Your task to perform on an android device: change keyboard looks Image 0: 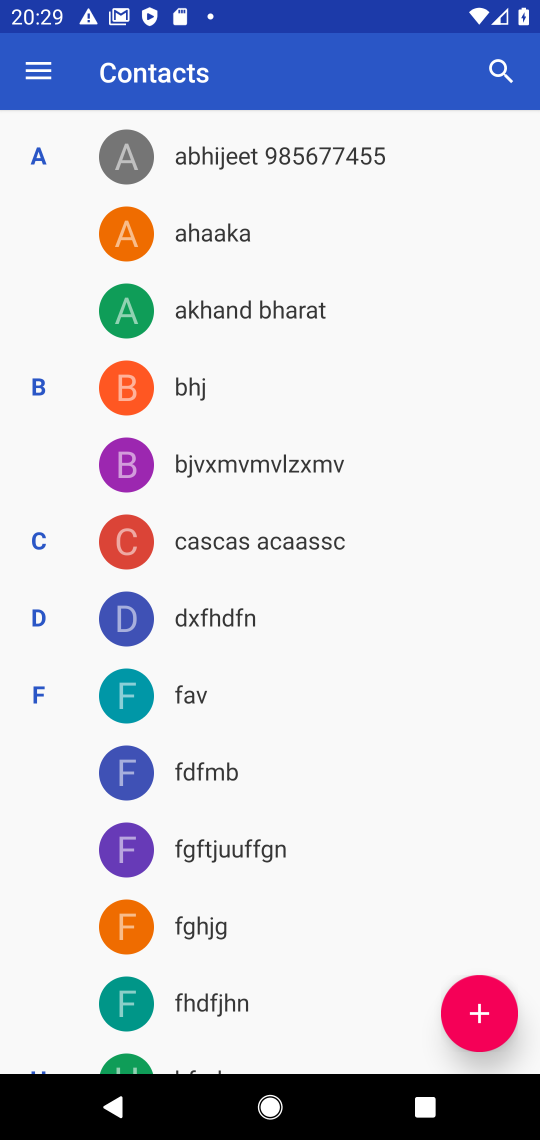
Step 0: press home button
Your task to perform on an android device: change keyboard looks Image 1: 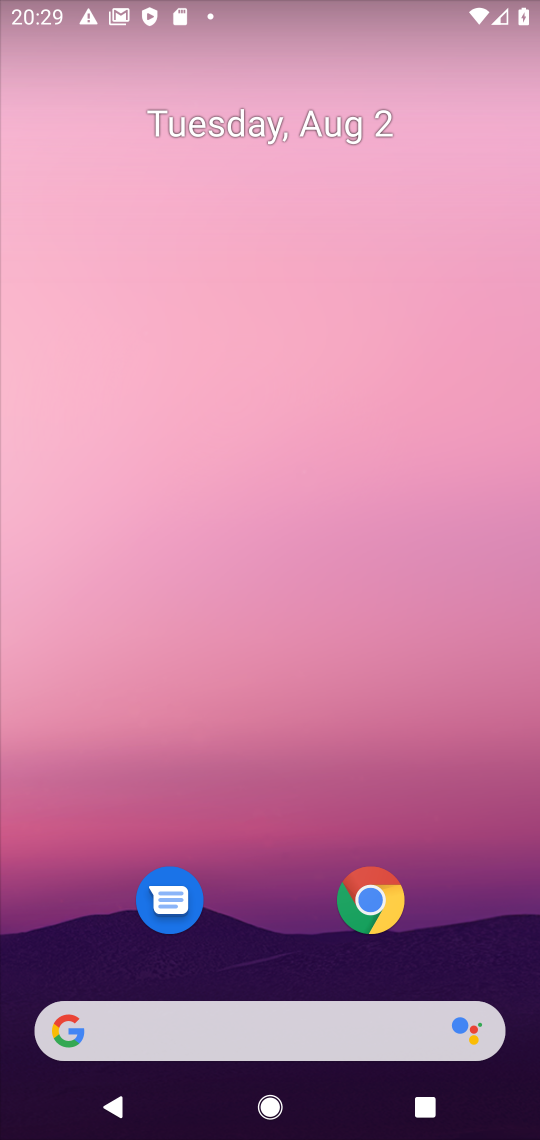
Step 1: drag from (284, 848) to (332, 17)
Your task to perform on an android device: change keyboard looks Image 2: 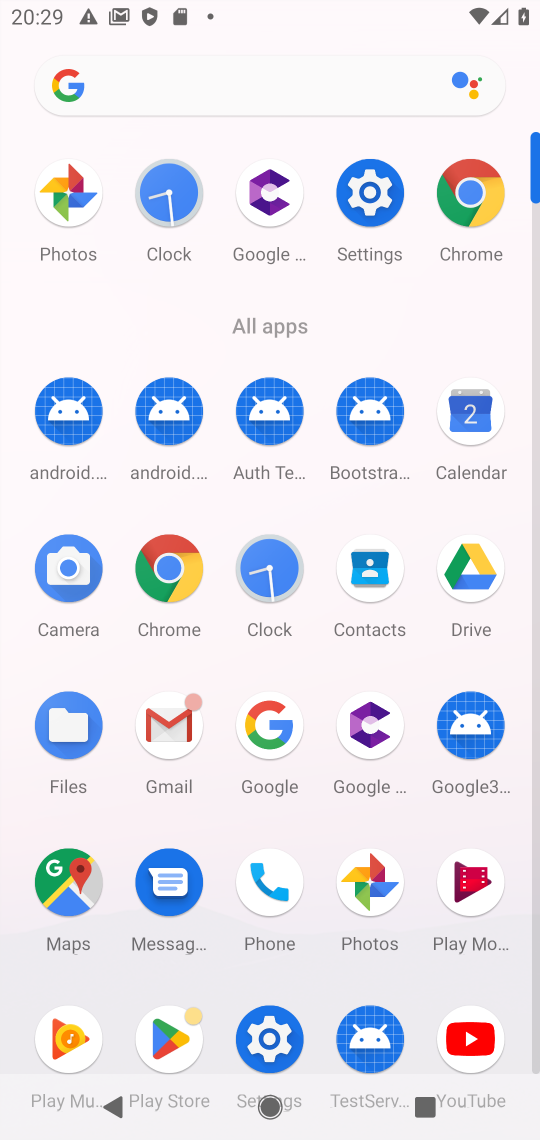
Step 2: click (365, 196)
Your task to perform on an android device: change keyboard looks Image 3: 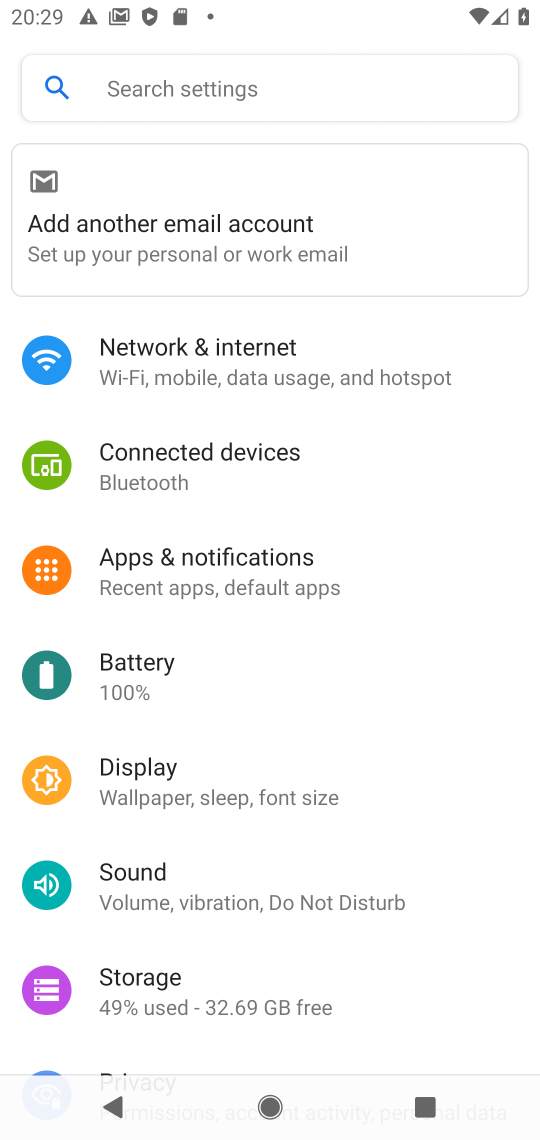
Step 3: drag from (297, 798) to (330, 25)
Your task to perform on an android device: change keyboard looks Image 4: 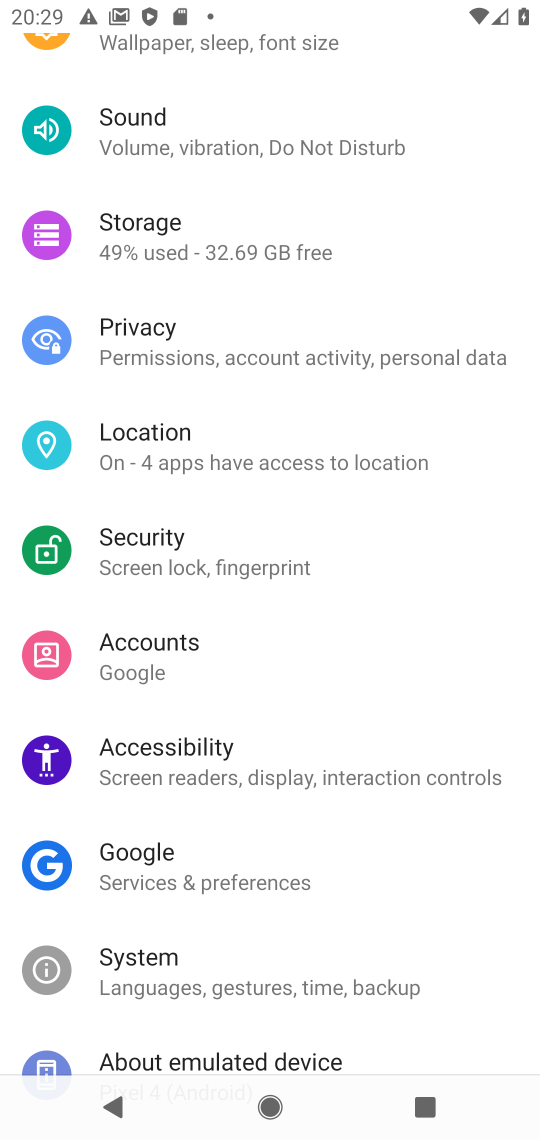
Step 4: click (250, 980)
Your task to perform on an android device: change keyboard looks Image 5: 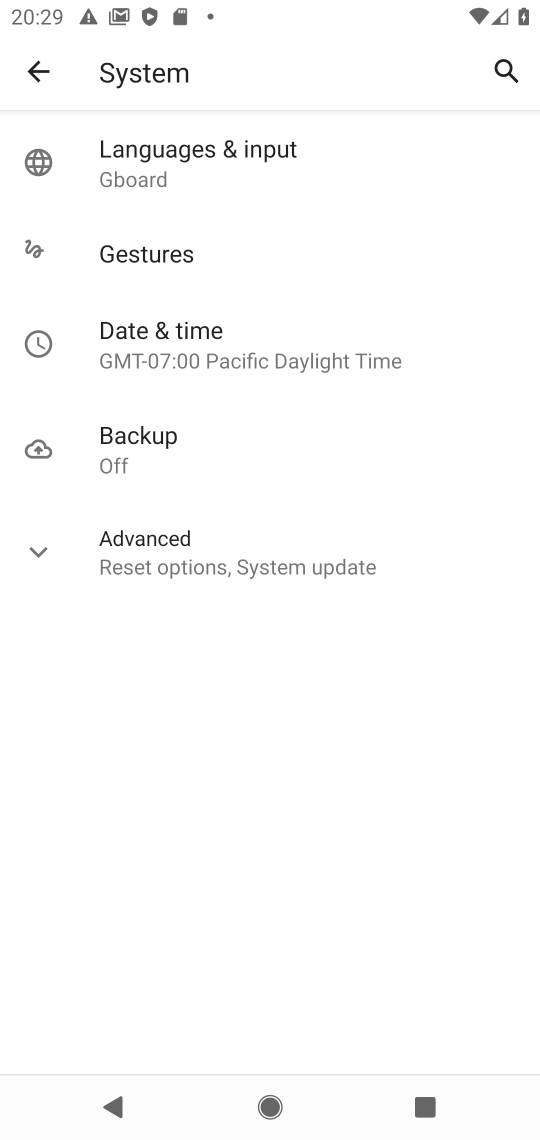
Step 5: click (261, 147)
Your task to perform on an android device: change keyboard looks Image 6: 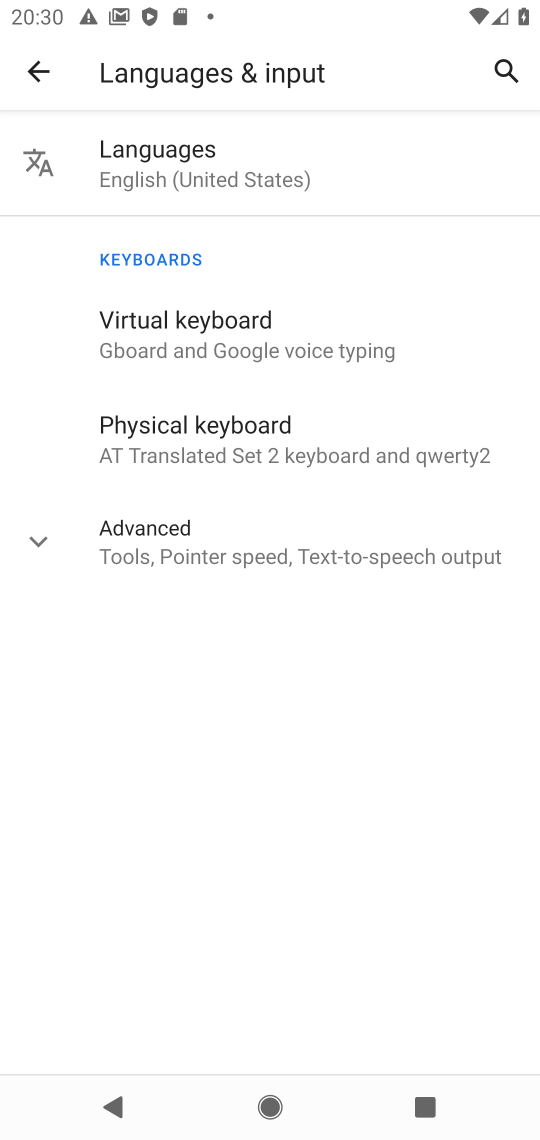
Step 6: click (239, 329)
Your task to perform on an android device: change keyboard looks Image 7: 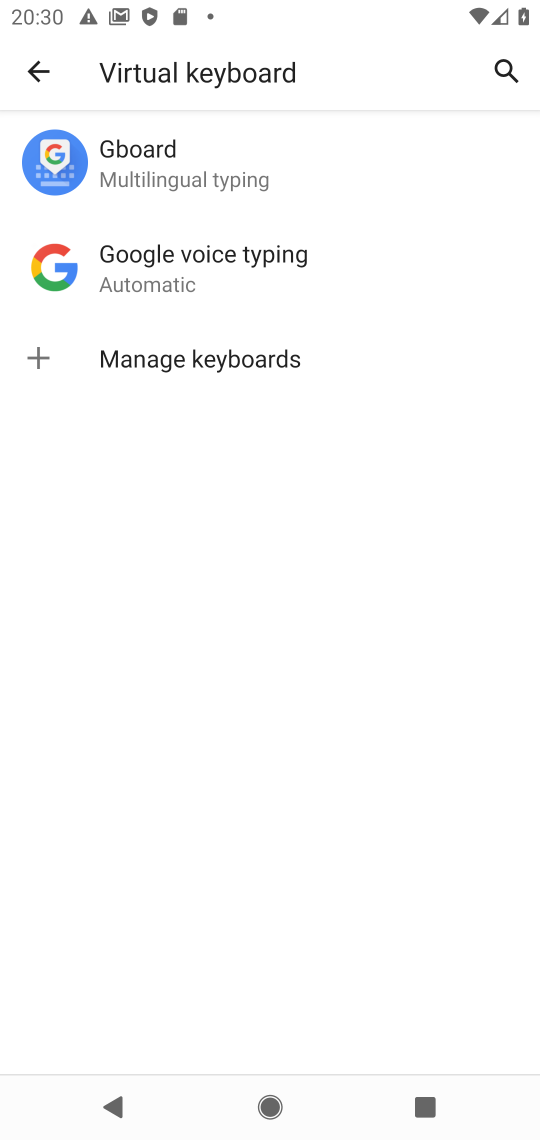
Step 7: click (190, 175)
Your task to perform on an android device: change keyboard looks Image 8: 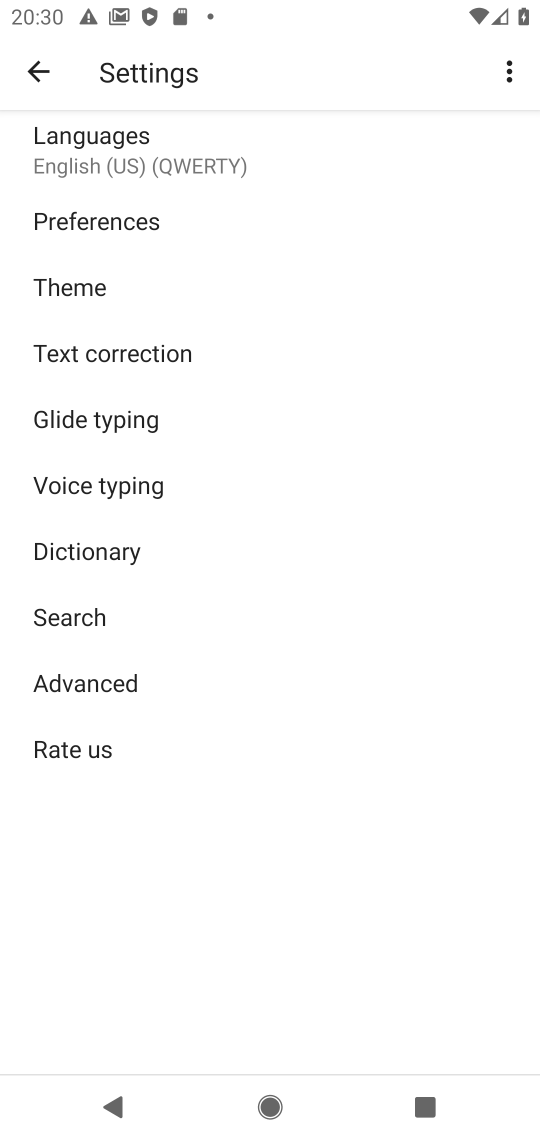
Step 8: click (93, 289)
Your task to perform on an android device: change keyboard looks Image 9: 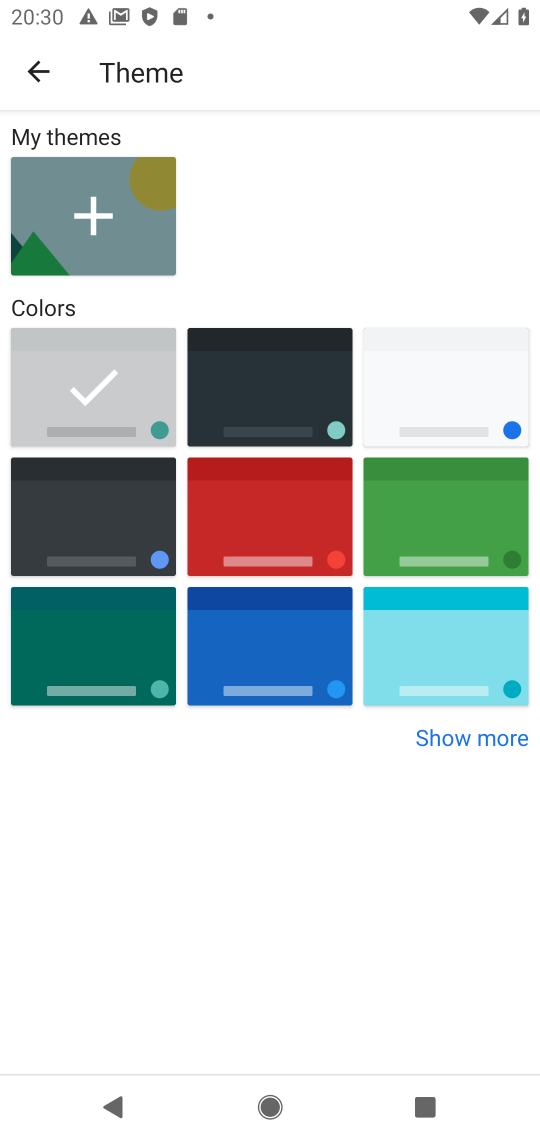
Step 9: click (234, 509)
Your task to perform on an android device: change keyboard looks Image 10: 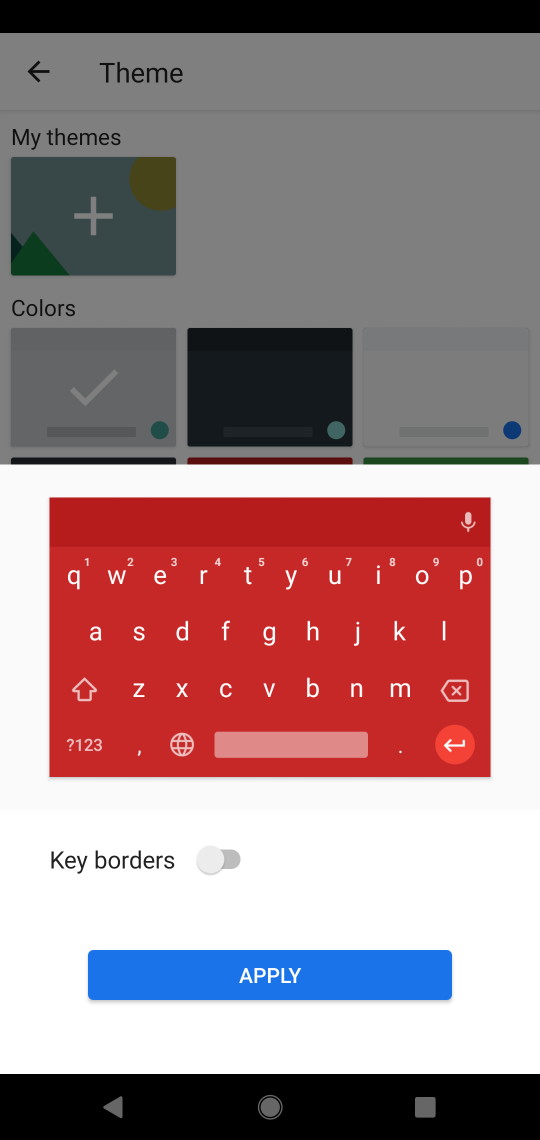
Step 10: click (219, 856)
Your task to perform on an android device: change keyboard looks Image 11: 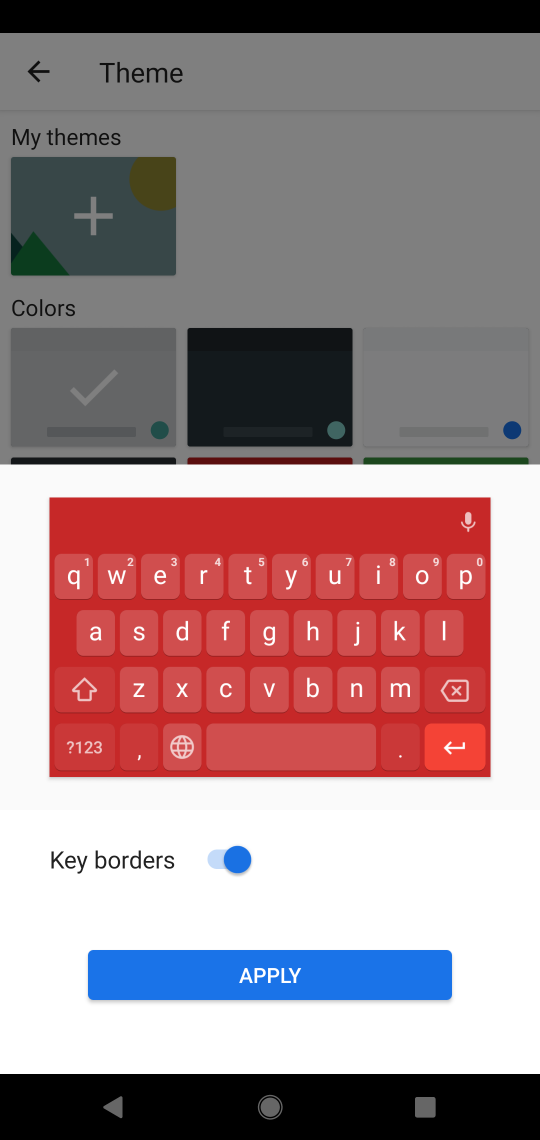
Step 11: click (267, 971)
Your task to perform on an android device: change keyboard looks Image 12: 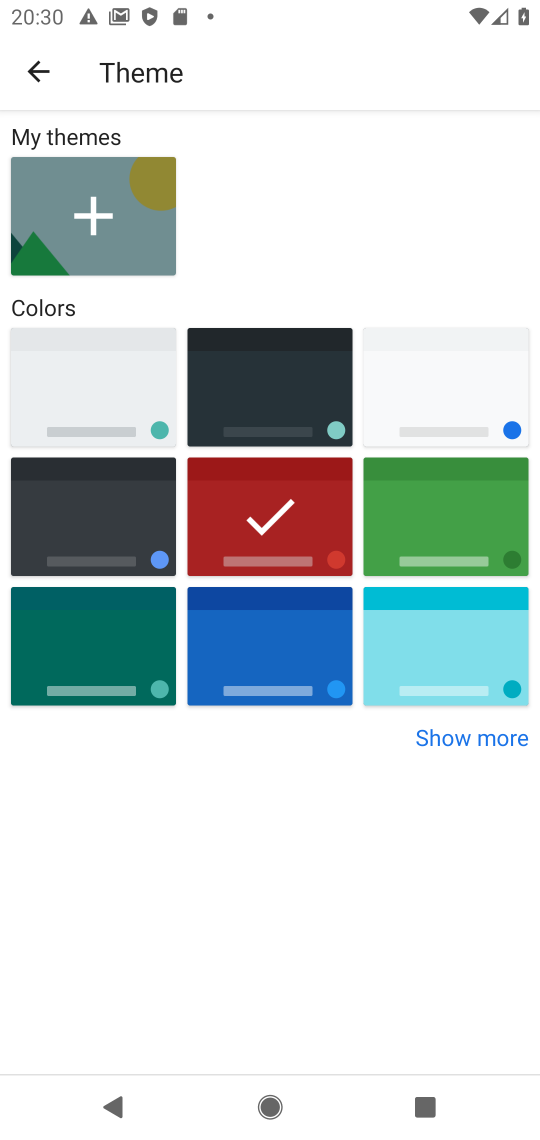
Step 12: task complete